Your task to perform on an android device: What's the weather today? Image 0: 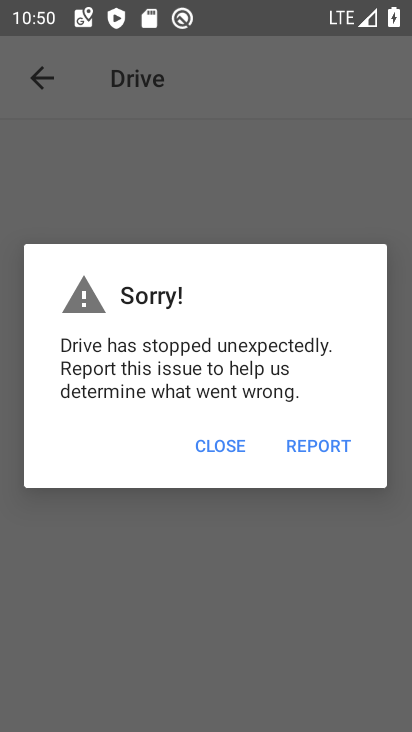
Step 0: press home button
Your task to perform on an android device: What's the weather today? Image 1: 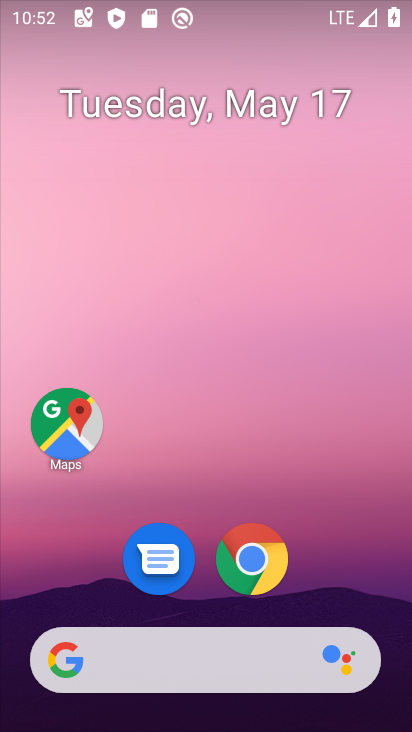
Step 1: click (169, 670)
Your task to perform on an android device: What's the weather today? Image 2: 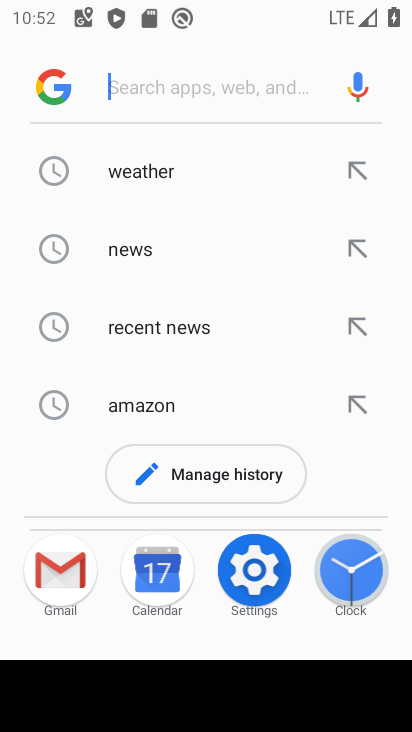
Step 2: type "What's the weather today?"
Your task to perform on an android device: What's the weather today? Image 3: 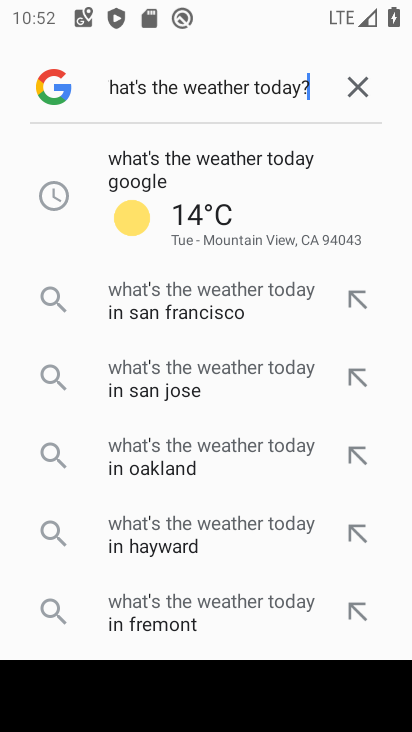
Step 3: click (210, 161)
Your task to perform on an android device: What's the weather today? Image 4: 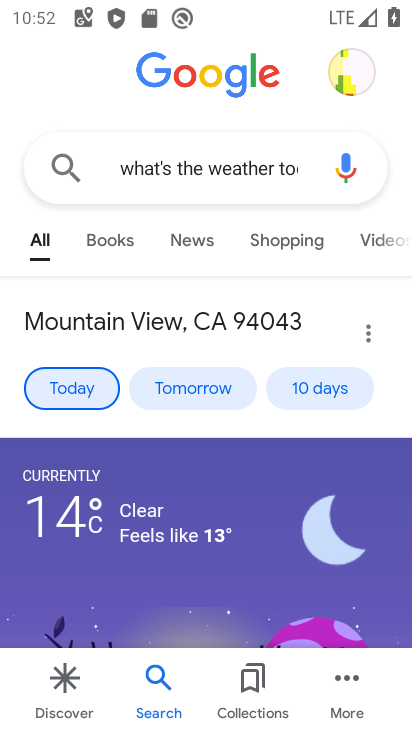
Step 4: task complete